Your task to perform on an android device: find which apps use the phone's location Image 0: 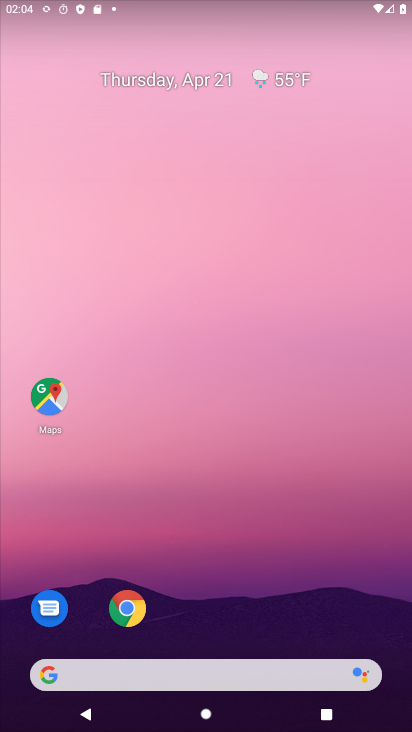
Step 0: drag from (240, 307) to (232, 63)
Your task to perform on an android device: find which apps use the phone's location Image 1: 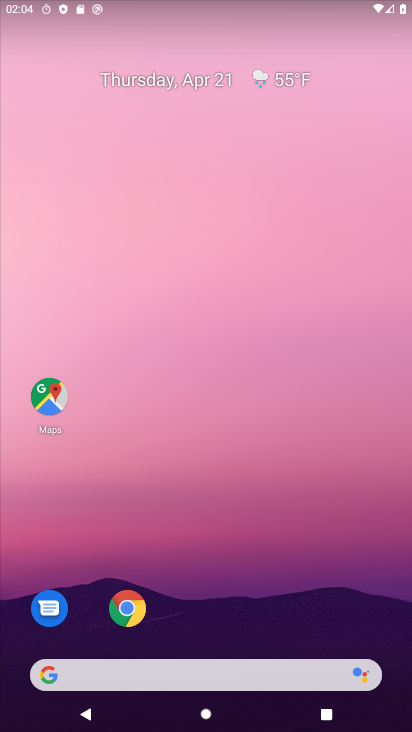
Step 1: drag from (208, 606) to (55, 52)
Your task to perform on an android device: find which apps use the phone's location Image 2: 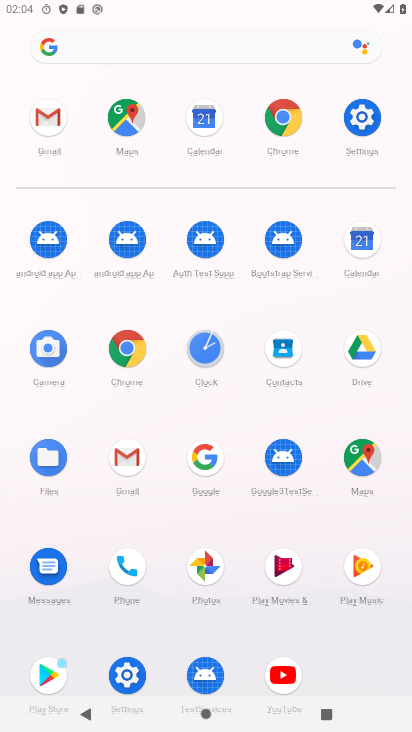
Step 2: click (359, 117)
Your task to perform on an android device: find which apps use the phone's location Image 3: 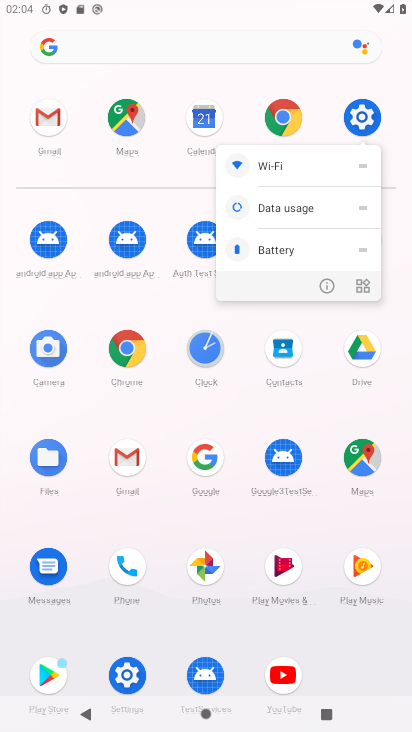
Step 3: click (359, 117)
Your task to perform on an android device: find which apps use the phone's location Image 4: 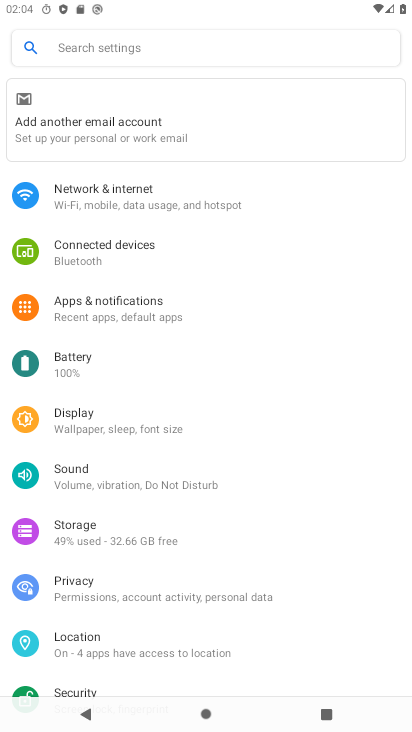
Step 4: click (99, 643)
Your task to perform on an android device: find which apps use the phone's location Image 5: 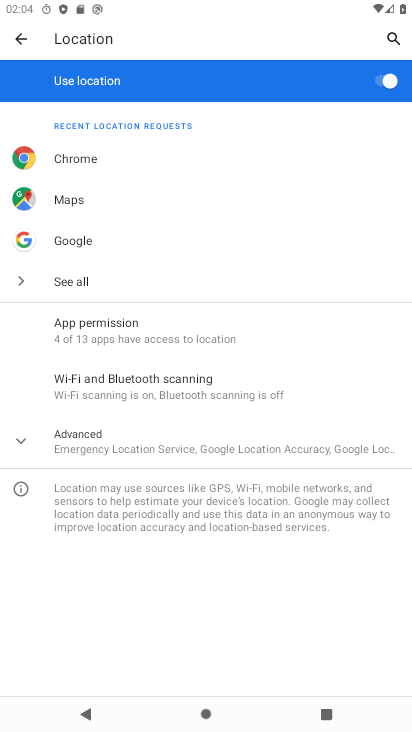
Step 5: click (79, 335)
Your task to perform on an android device: find which apps use the phone's location Image 6: 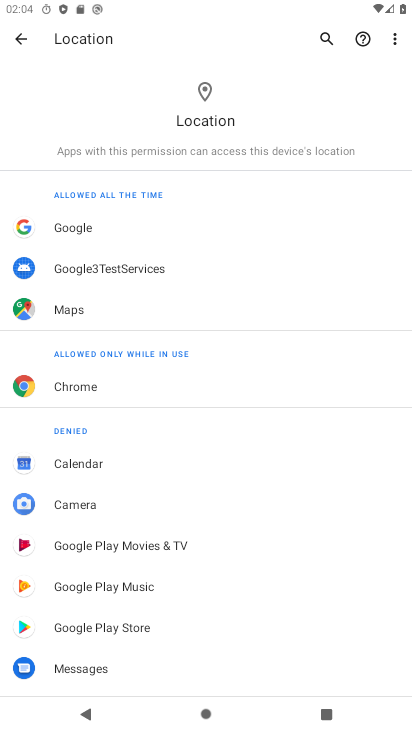
Step 6: task complete